Your task to perform on an android device: Go to Android settings Image 0: 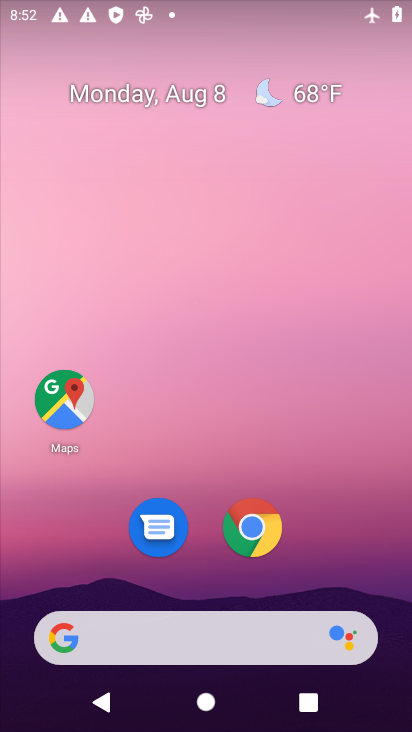
Step 0: drag from (389, 685) to (336, 163)
Your task to perform on an android device: Go to Android settings Image 1: 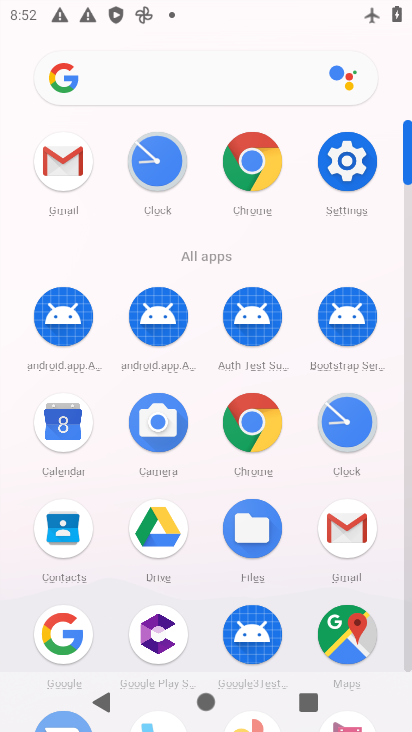
Step 1: click (346, 171)
Your task to perform on an android device: Go to Android settings Image 2: 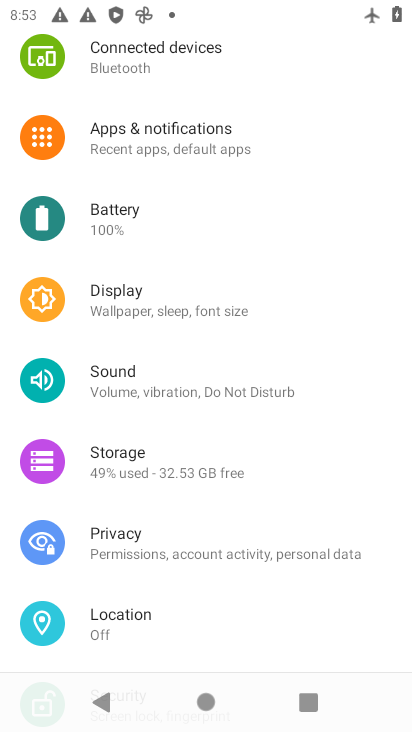
Step 2: task complete